Your task to perform on an android device: Empty the shopping cart on newegg. Image 0: 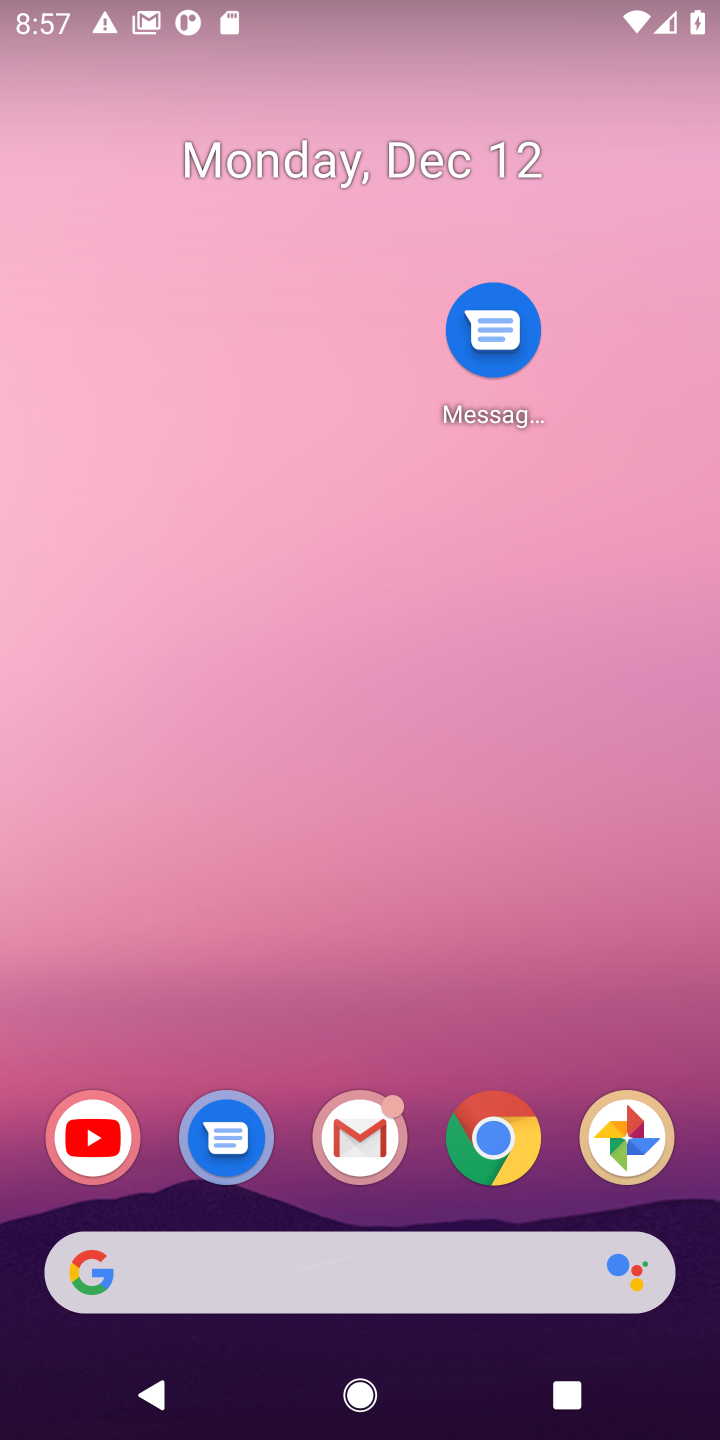
Step 0: drag from (313, 1290) to (337, 149)
Your task to perform on an android device: Empty the shopping cart on newegg. Image 1: 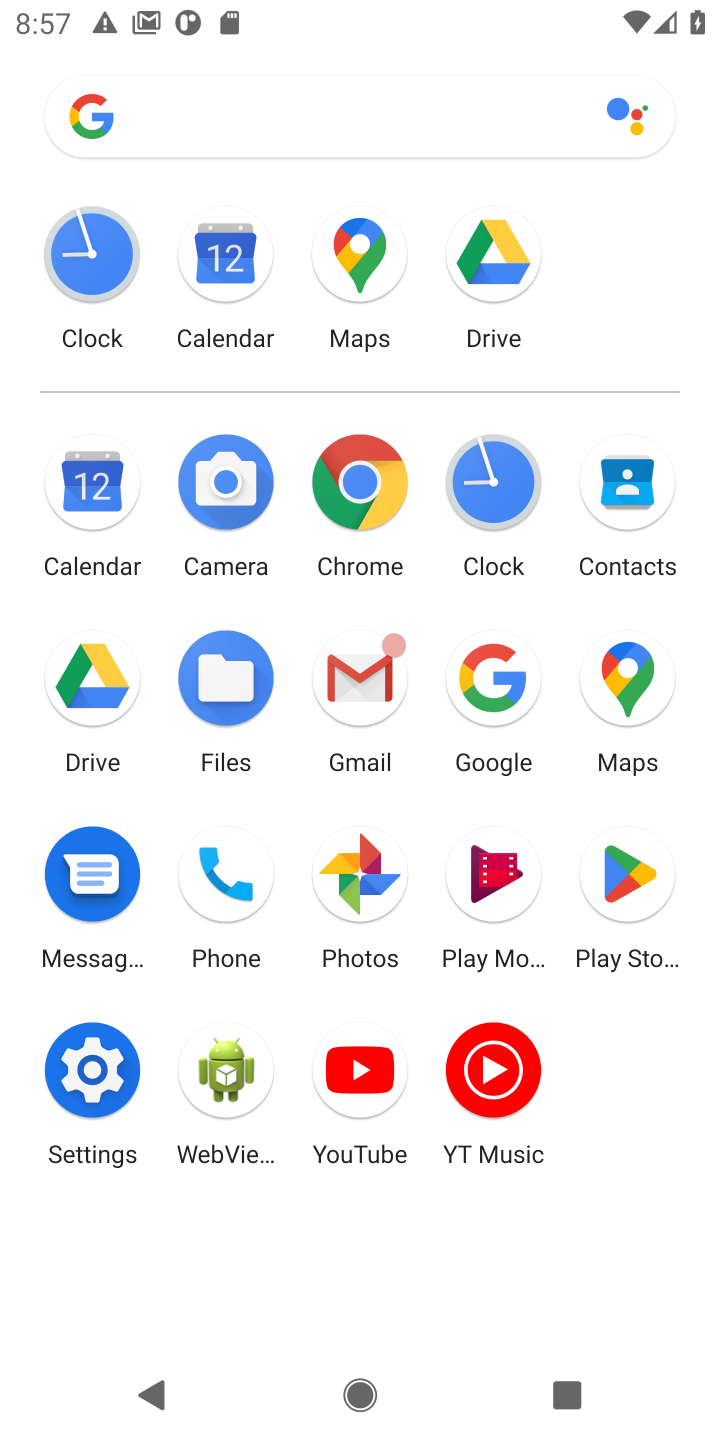
Step 1: click (479, 679)
Your task to perform on an android device: Empty the shopping cart on newegg. Image 2: 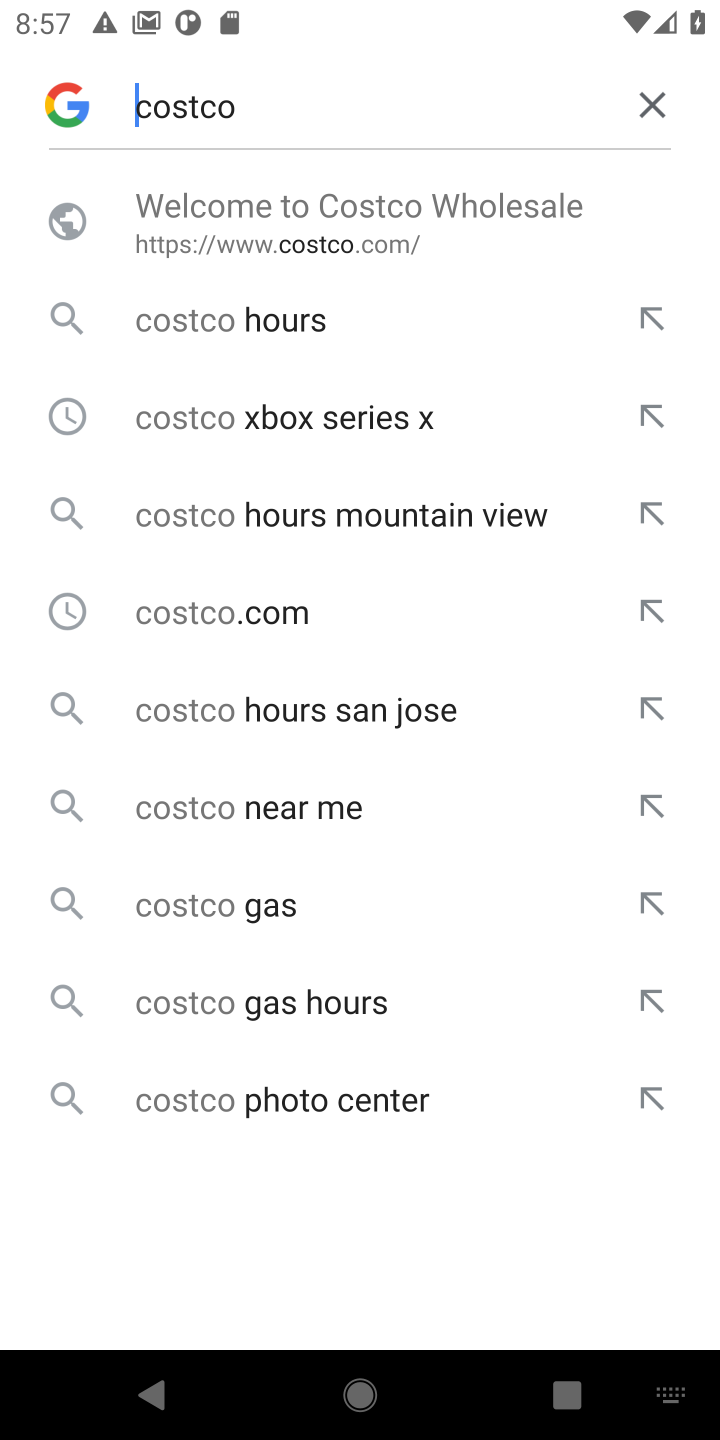
Step 2: click (202, 109)
Your task to perform on an android device: Empty the shopping cart on newegg. Image 3: 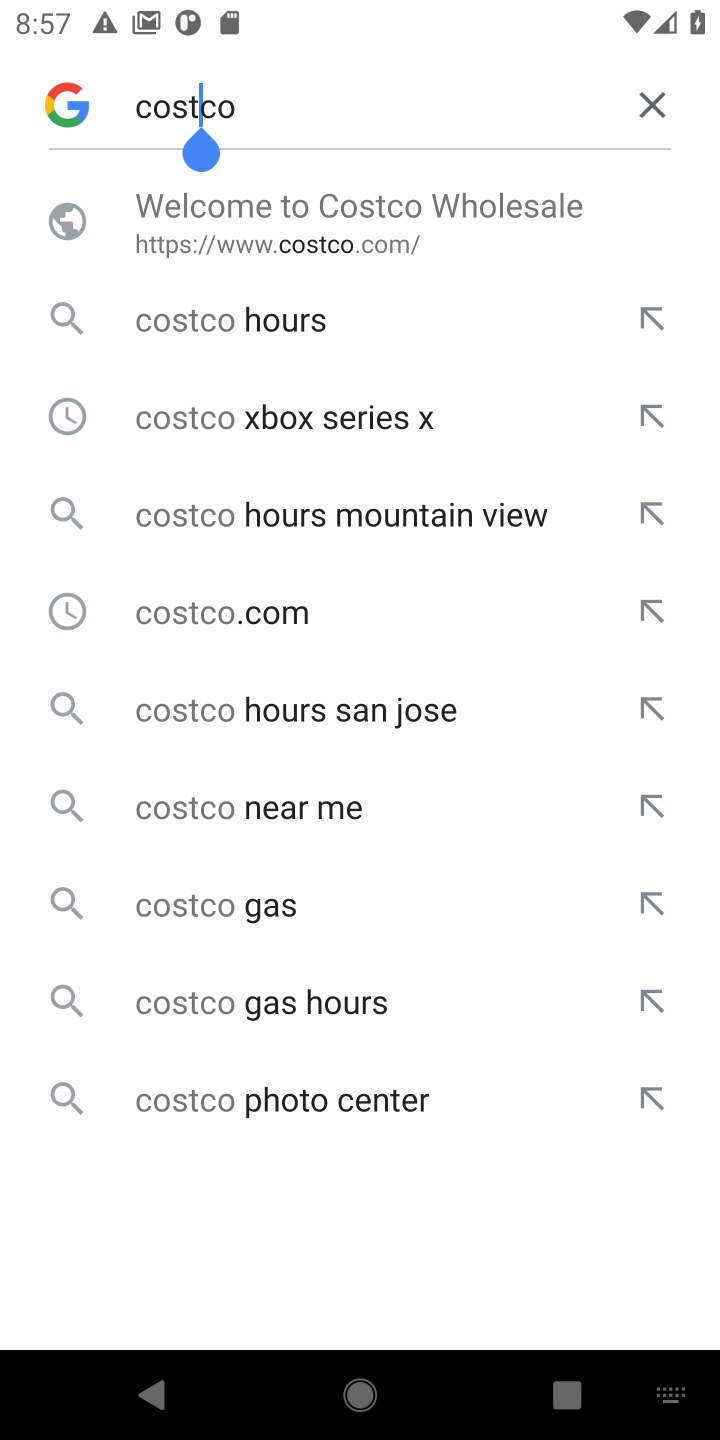
Step 3: click (659, 110)
Your task to perform on an android device: Empty the shopping cart on newegg. Image 4: 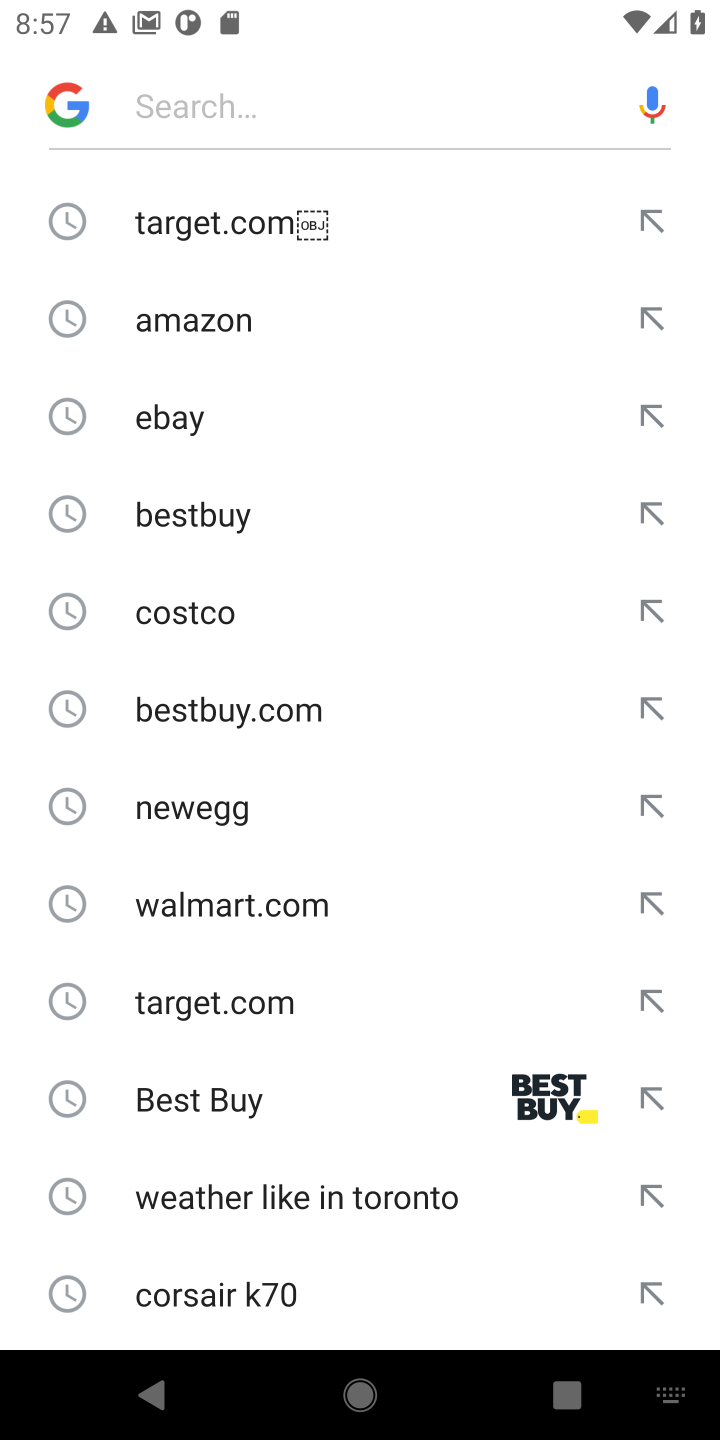
Step 4: click (182, 810)
Your task to perform on an android device: Empty the shopping cart on newegg. Image 5: 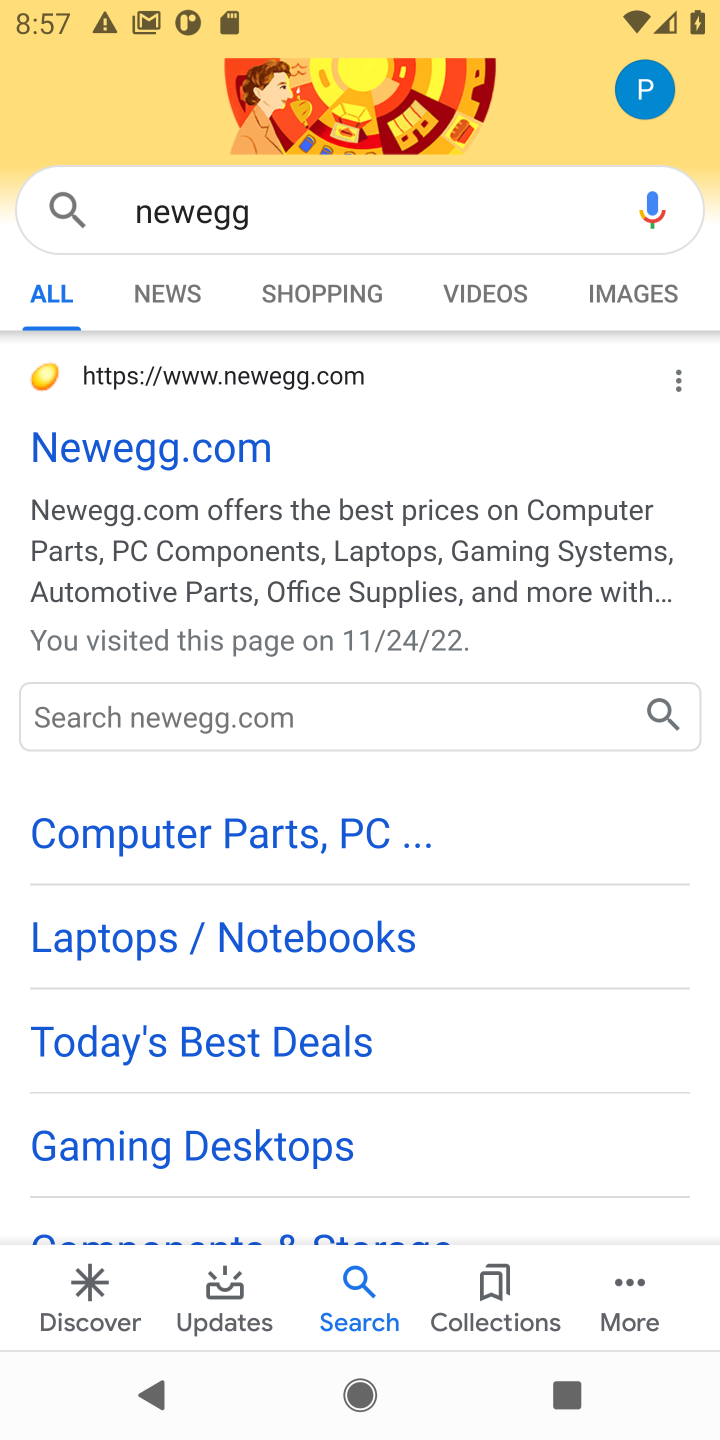
Step 5: click (185, 459)
Your task to perform on an android device: Empty the shopping cart on newegg. Image 6: 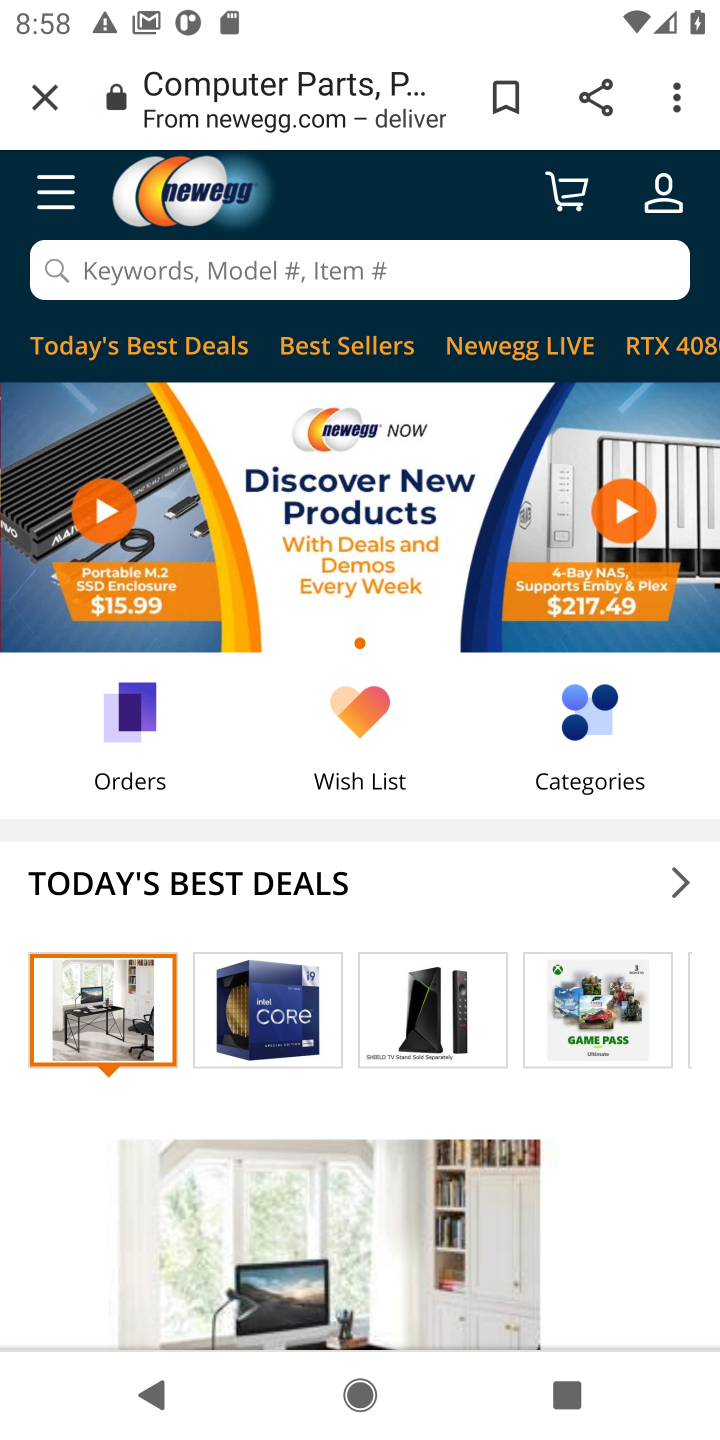
Step 6: click (159, 265)
Your task to perform on an android device: Empty the shopping cart on newegg. Image 7: 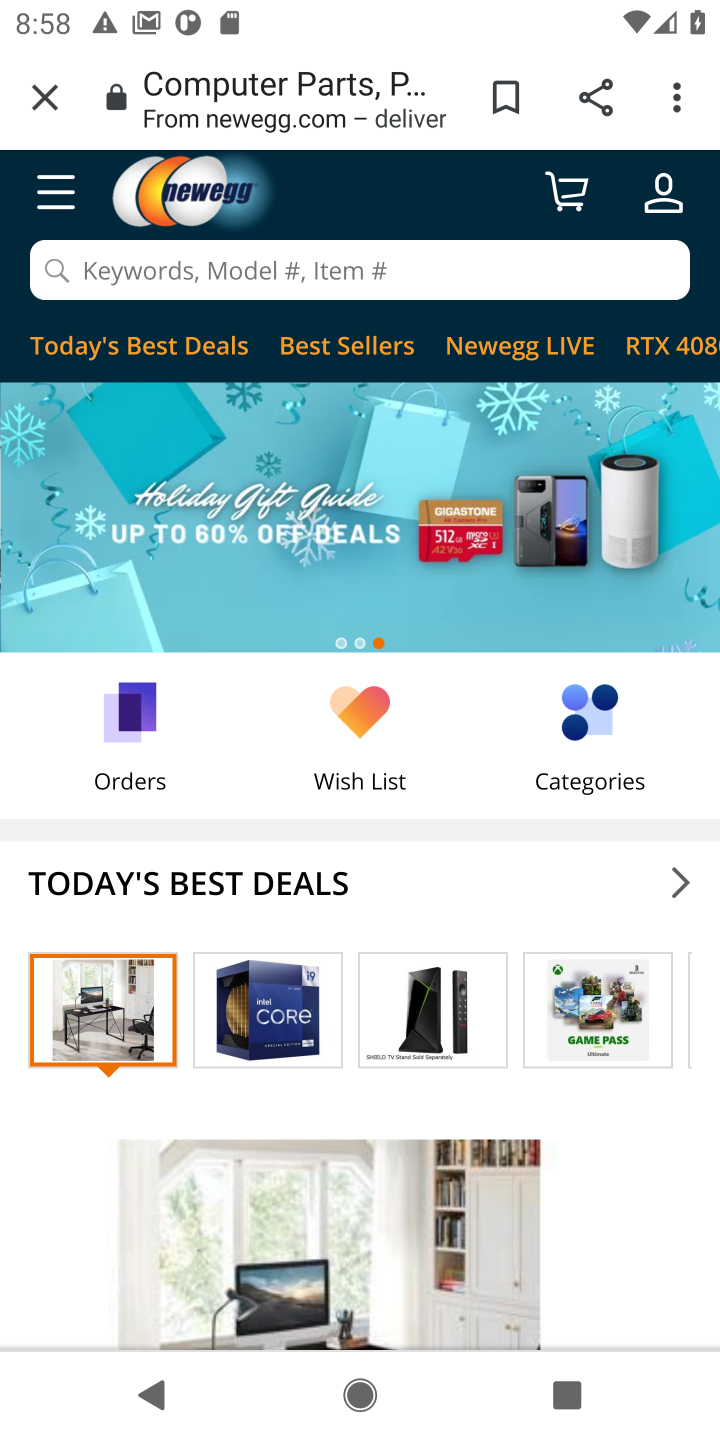
Step 7: task complete